Your task to perform on an android device: turn off airplane mode Image 0: 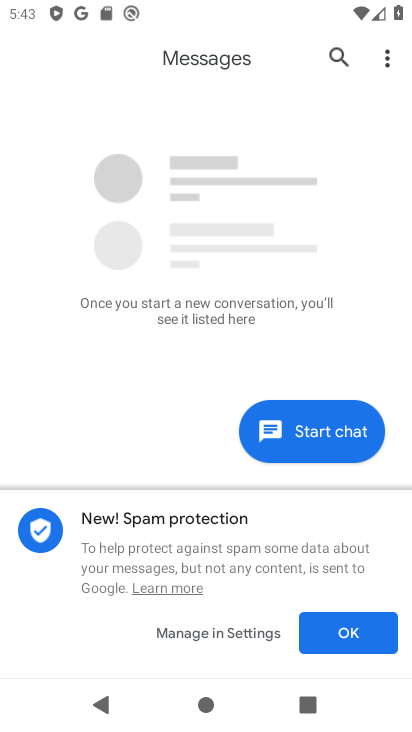
Step 0: press home button
Your task to perform on an android device: turn off airplane mode Image 1: 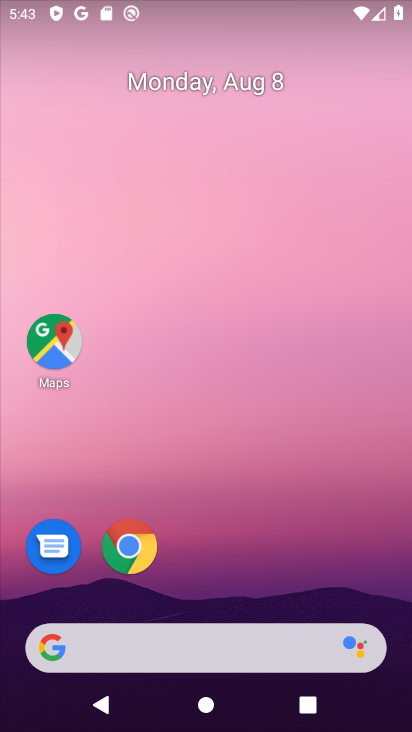
Step 1: drag from (226, 457) to (232, 113)
Your task to perform on an android device: turn off airplane mode Image 2: 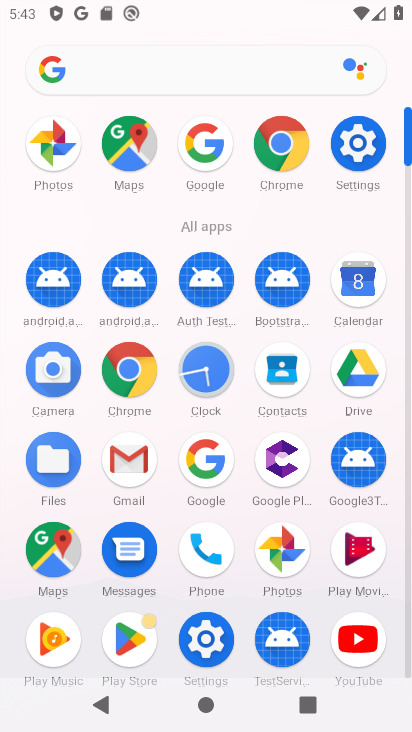
Step 2: click (353, 152)
Your task to perform on an android device: turn off airplane mode Image 3: 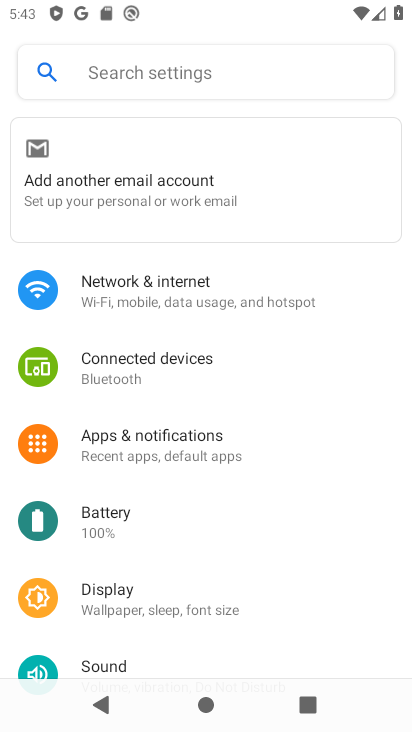
Step 3: click (152, 314)
Your task to perform on an android device: turn off airplane mode Image 4: 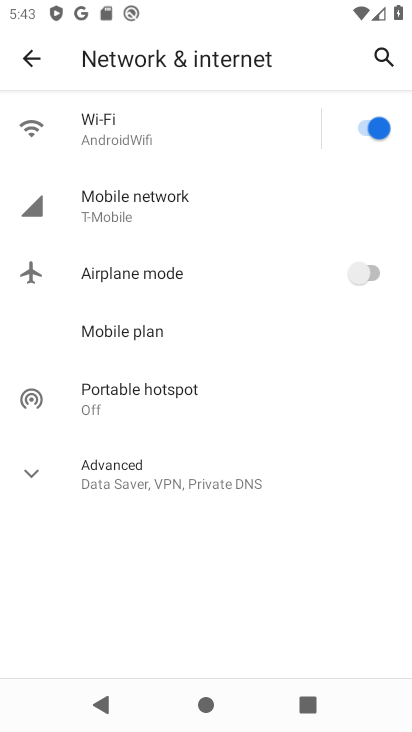
Step 4: task complete